Your task to perform on an android device: turn on sleep mode Image 0: 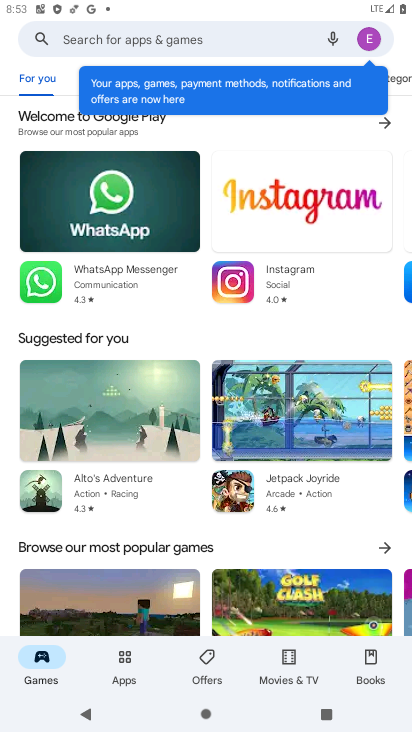
Step 0: press home button
Your task to perform on an android device: turn on sleep mode Image 1: 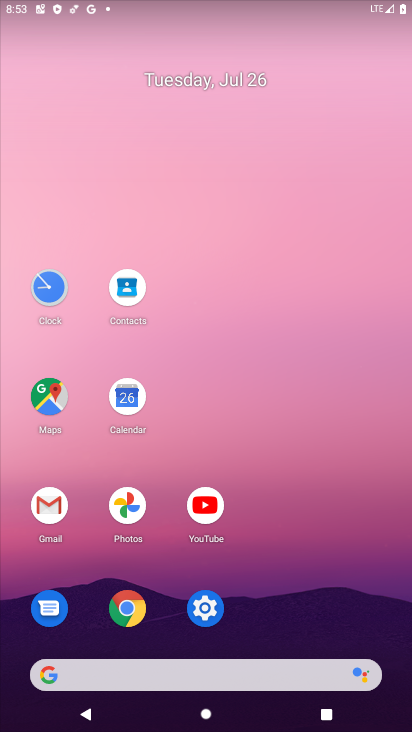
Step 1: click (205, 610)
Your task to perform on an android device: turn on sleep mode Image 2: 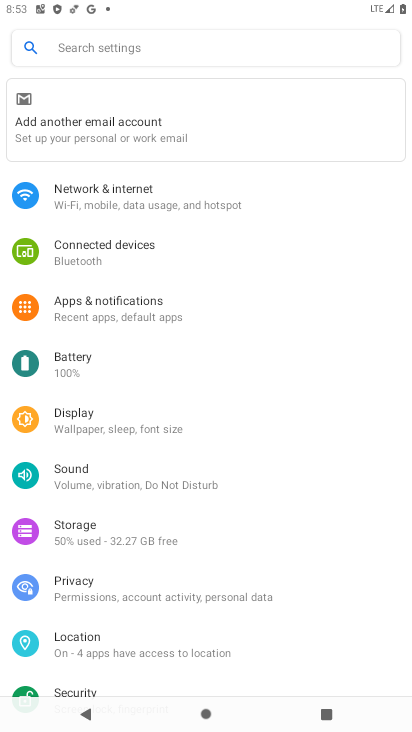
Step 2: click (71, 410)
Your task to perform on an android device: turn on sleep mode Image 3: 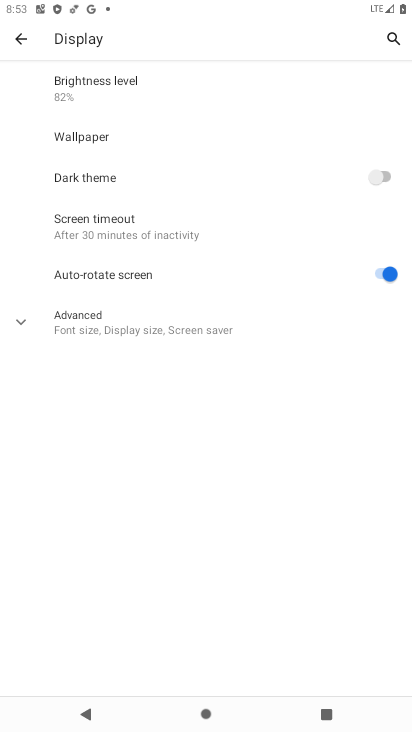
Step 3: task complete